Your task to perform on an android device: turn on javascript in the chrome app Image 0: 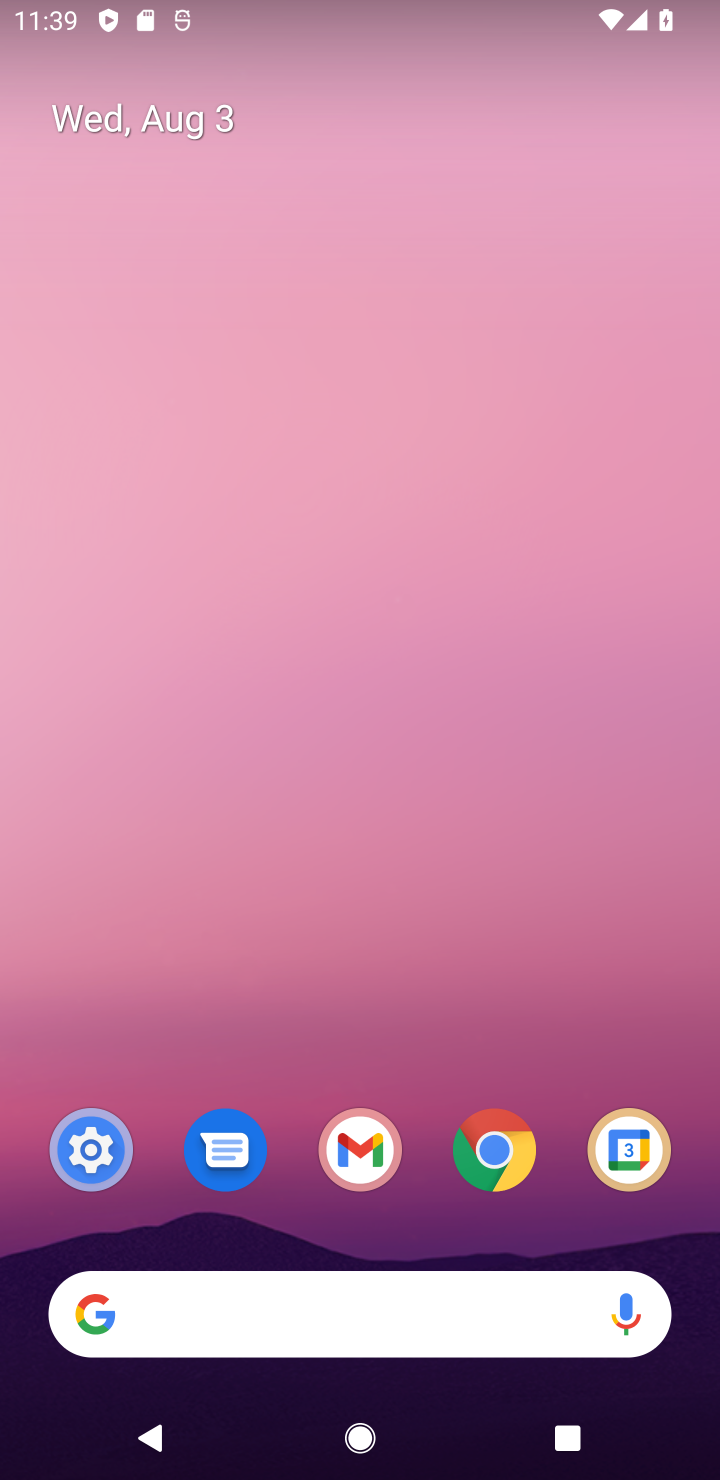
Step 0: press home button
Your task to perform on an android device: turn on javascript in the chrome app Image 1: 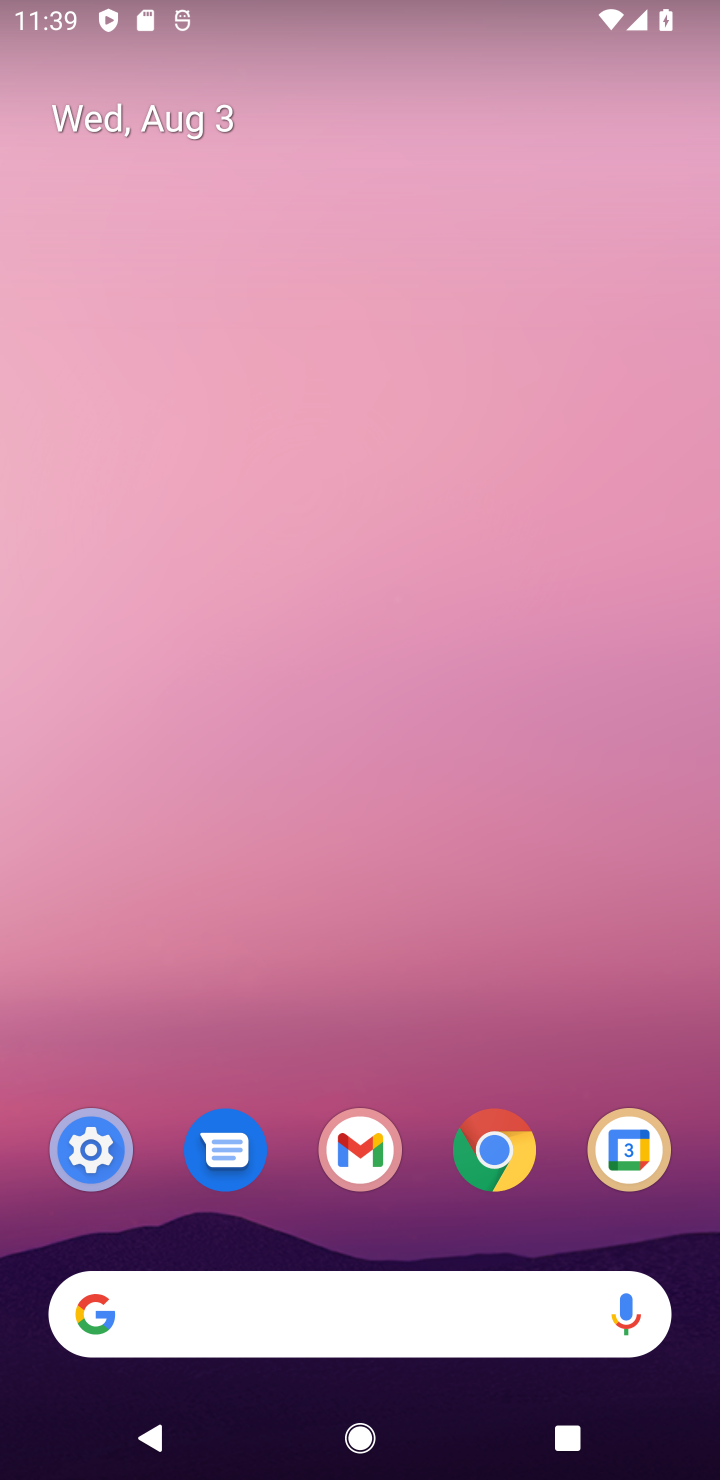
Step 1: drag from (542, 1049) to (572, 433)
Your task to perform on an android device: turn on javascript in the chrome app Image 2: 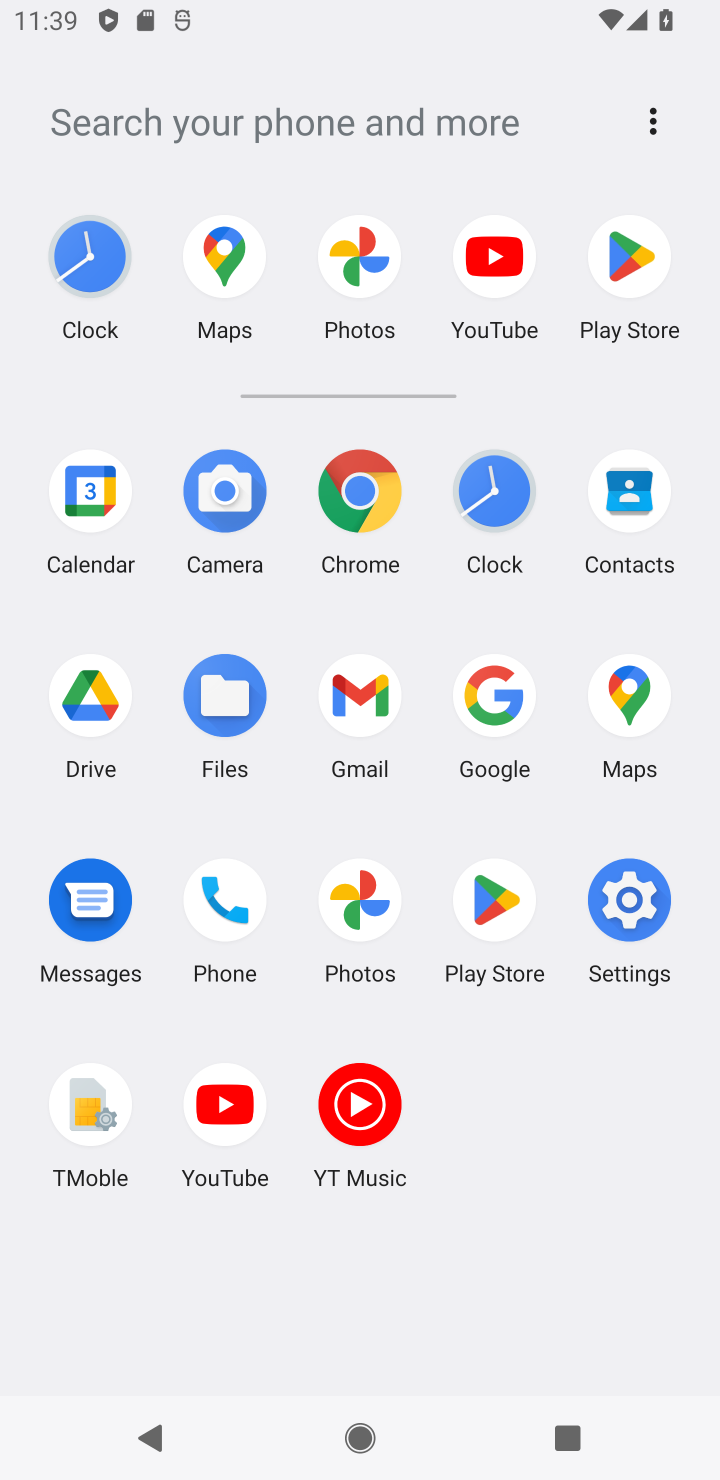
Step 2: click (366, 499)
Your task to perform on an android device: turn on javascript in the chrome app Image 3: 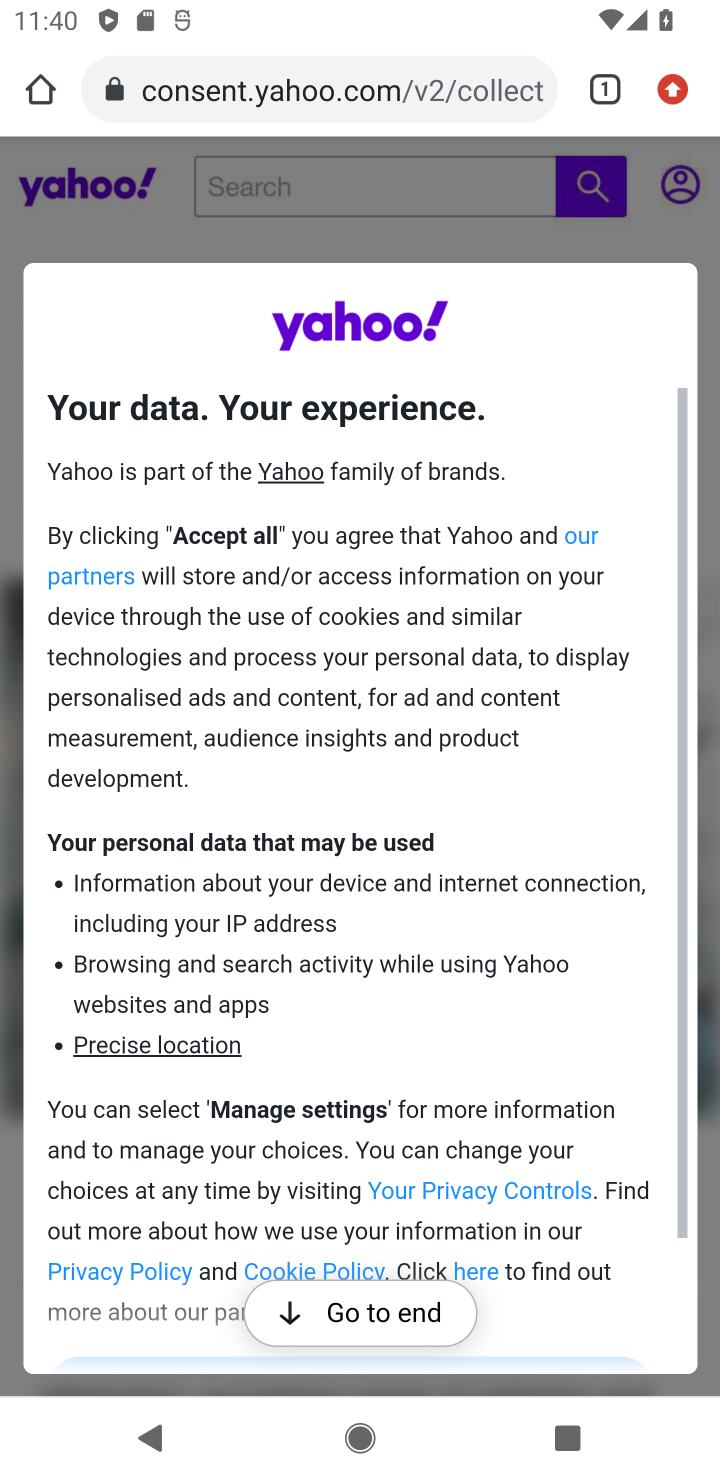
Step 3: click (679, 85)
Your task to perform on an android device: turn on javascript in the chrome app Image 4: 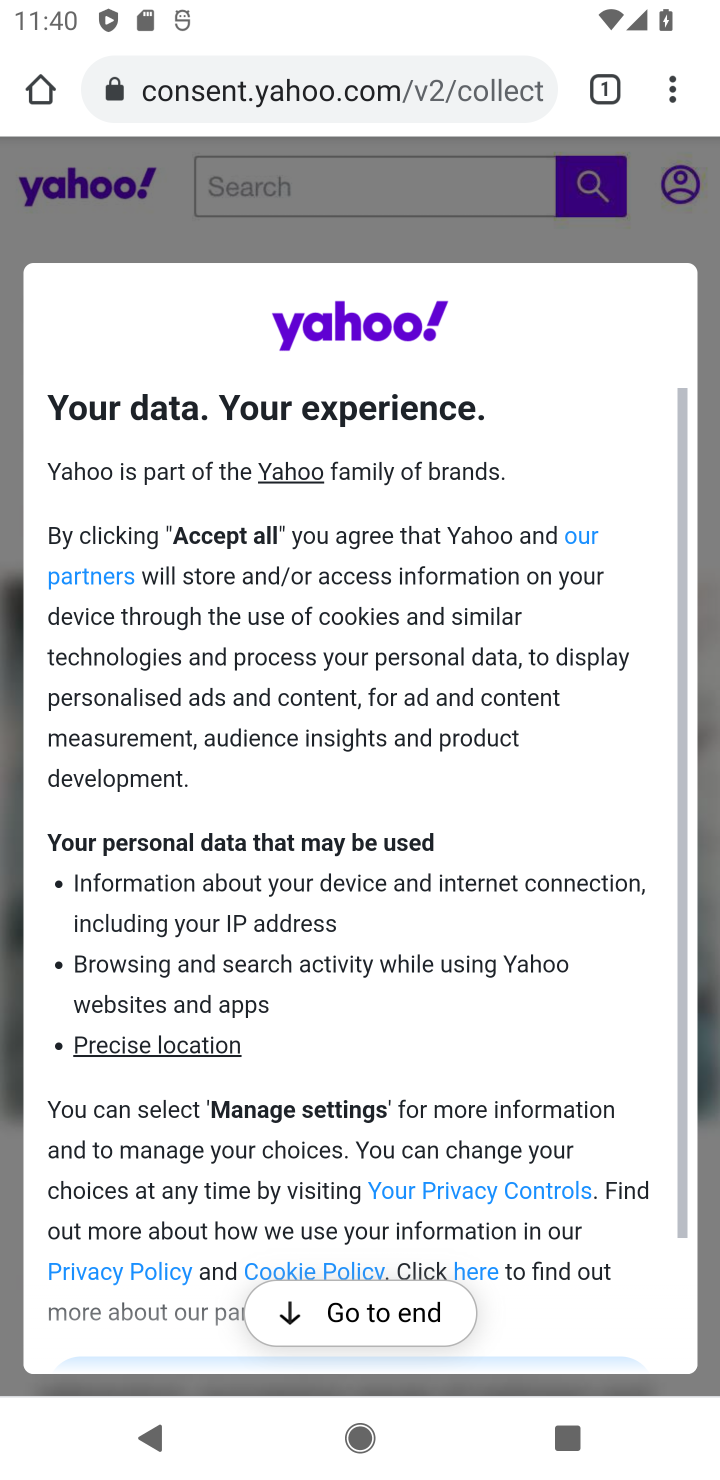
Step 4: click (667, 94)
Your task to perform on an android device: turn on javascript in the chrome app Image 5: 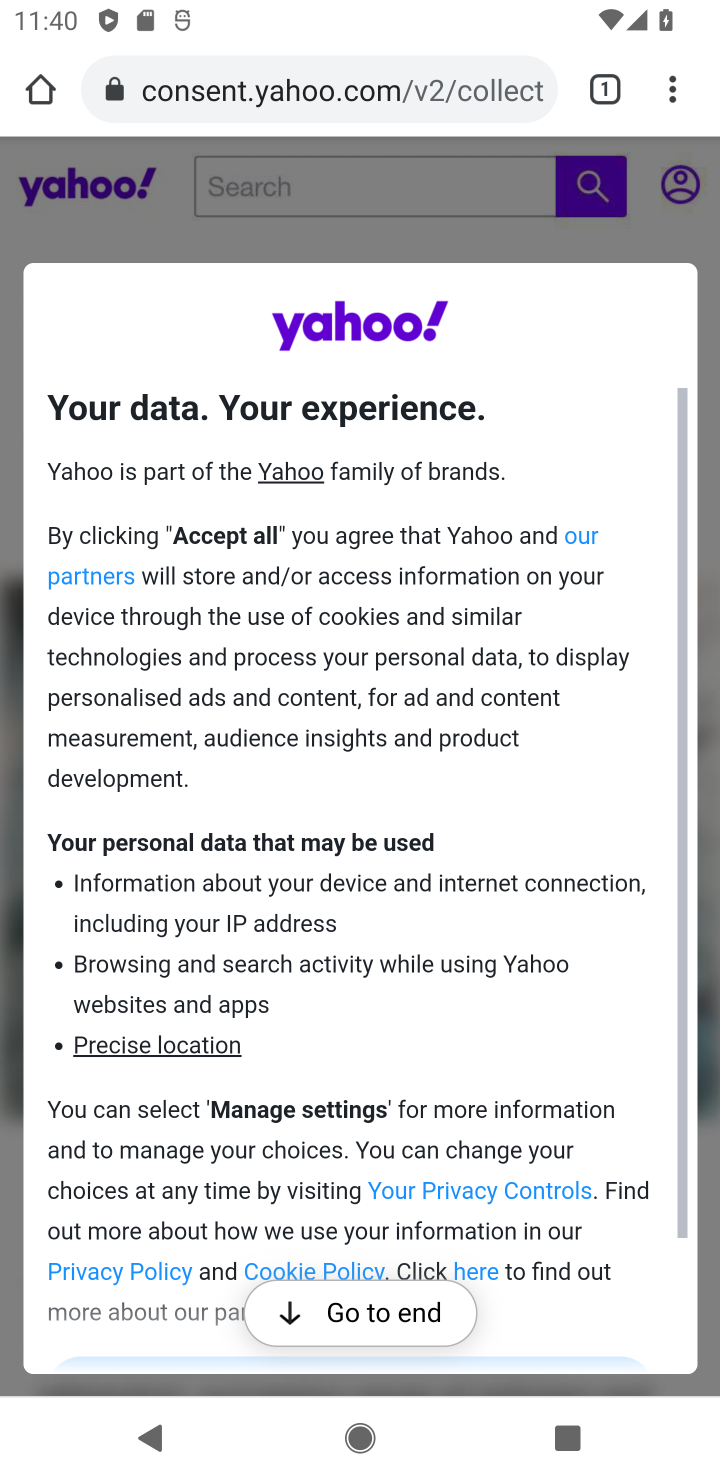
Step 5: click (666, 93)
Your task to perform on an android device: turn on javascript in the chrome app Image 6: 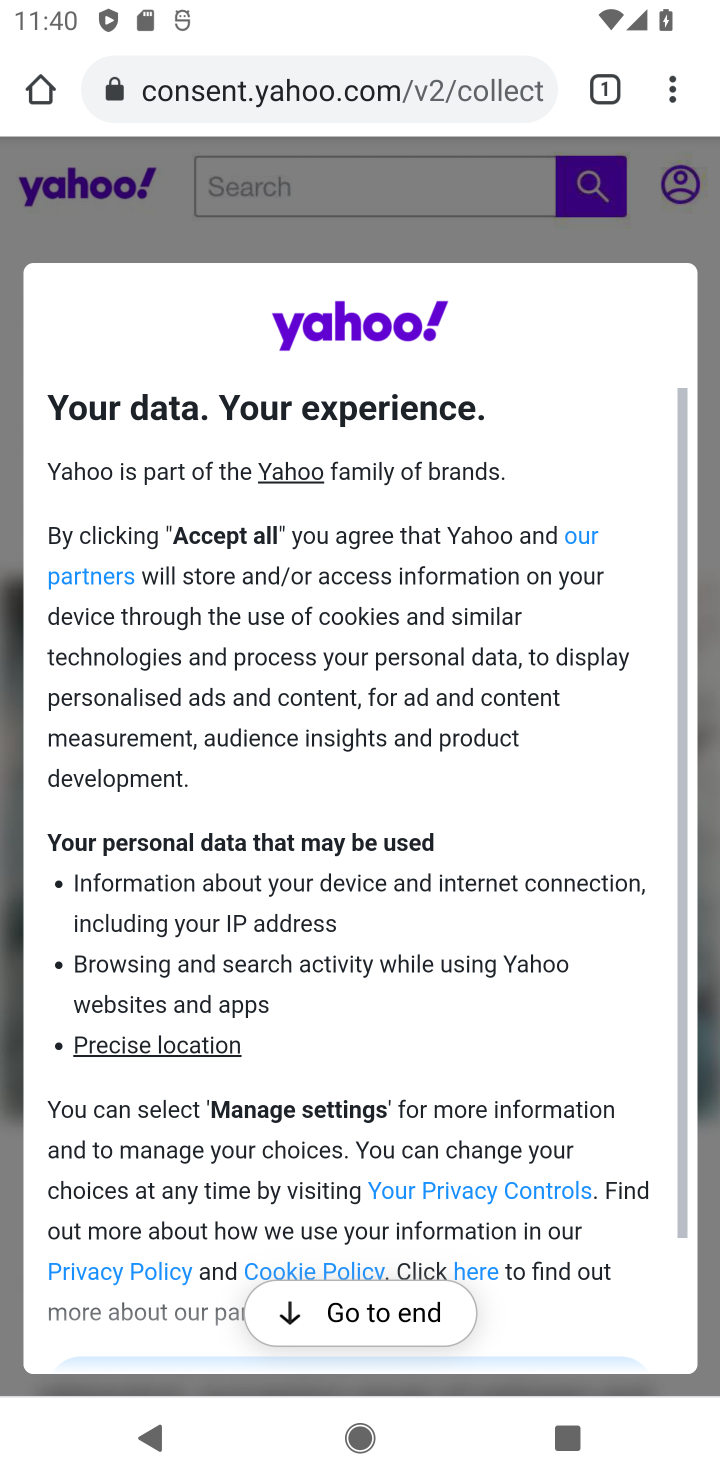
Step 6: click (669, 102)
Your task to perform on an android device: turn on javascript in the chrome app Image 7: 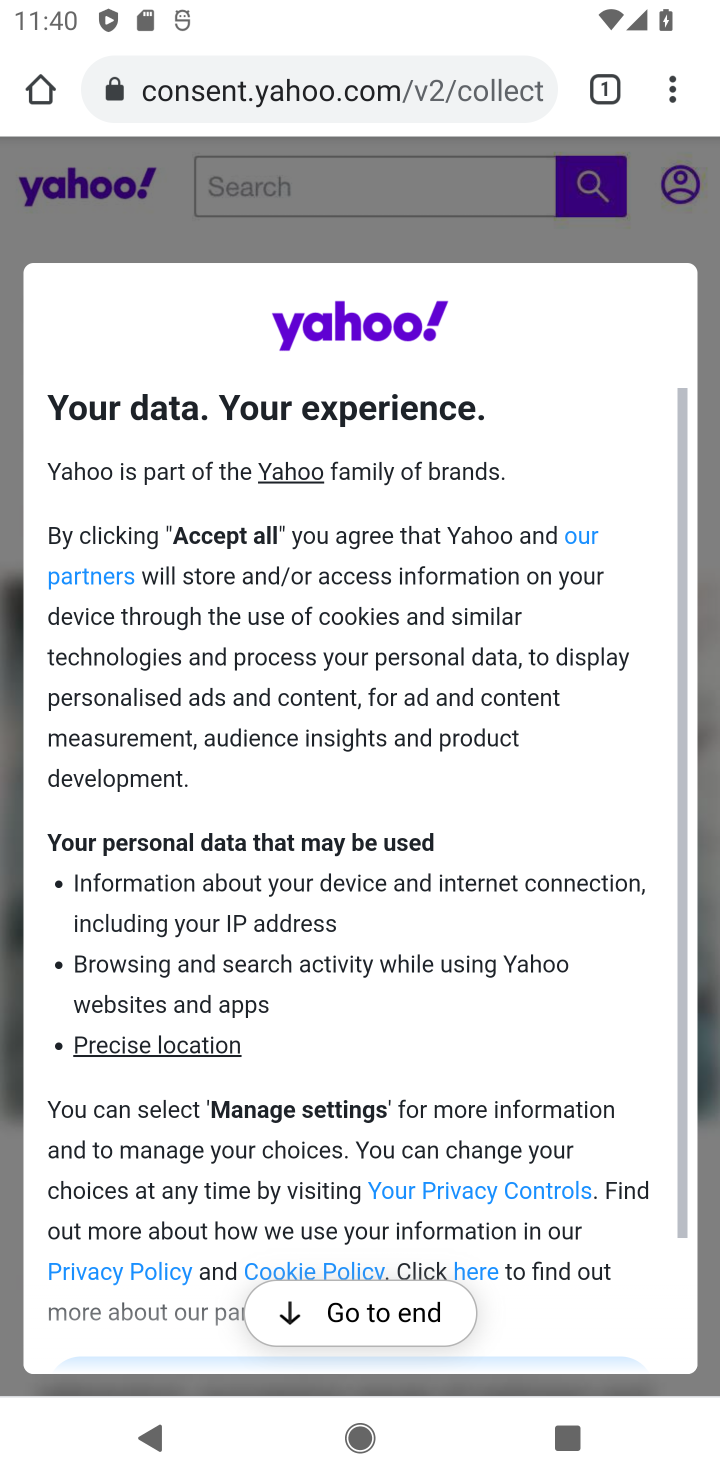
Step 7: click (668, 89)
Your task to perform on an android device: turn on javascript in the chrome app Image 8: 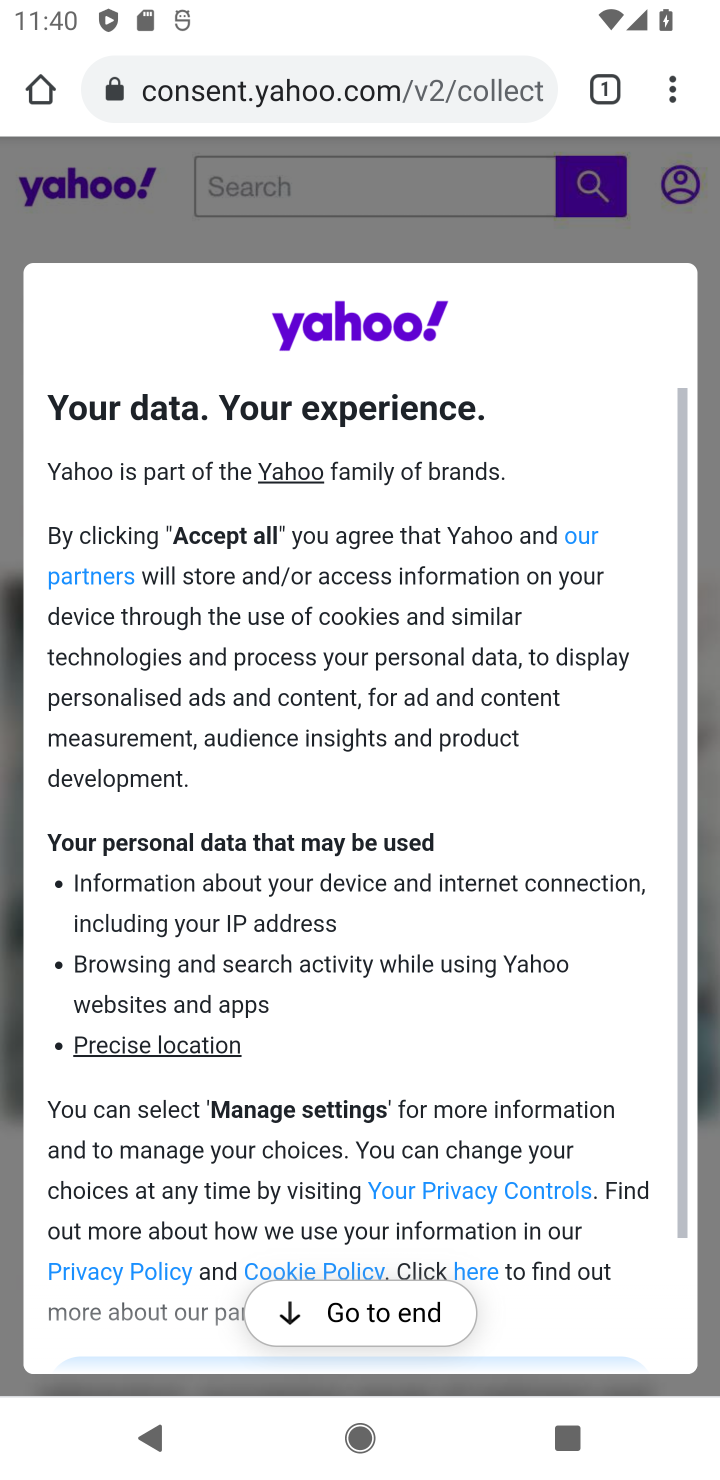
Step 8: click (676, 99)
Your task to perform on an android device: turn on javascript in the chrome app Image 9: 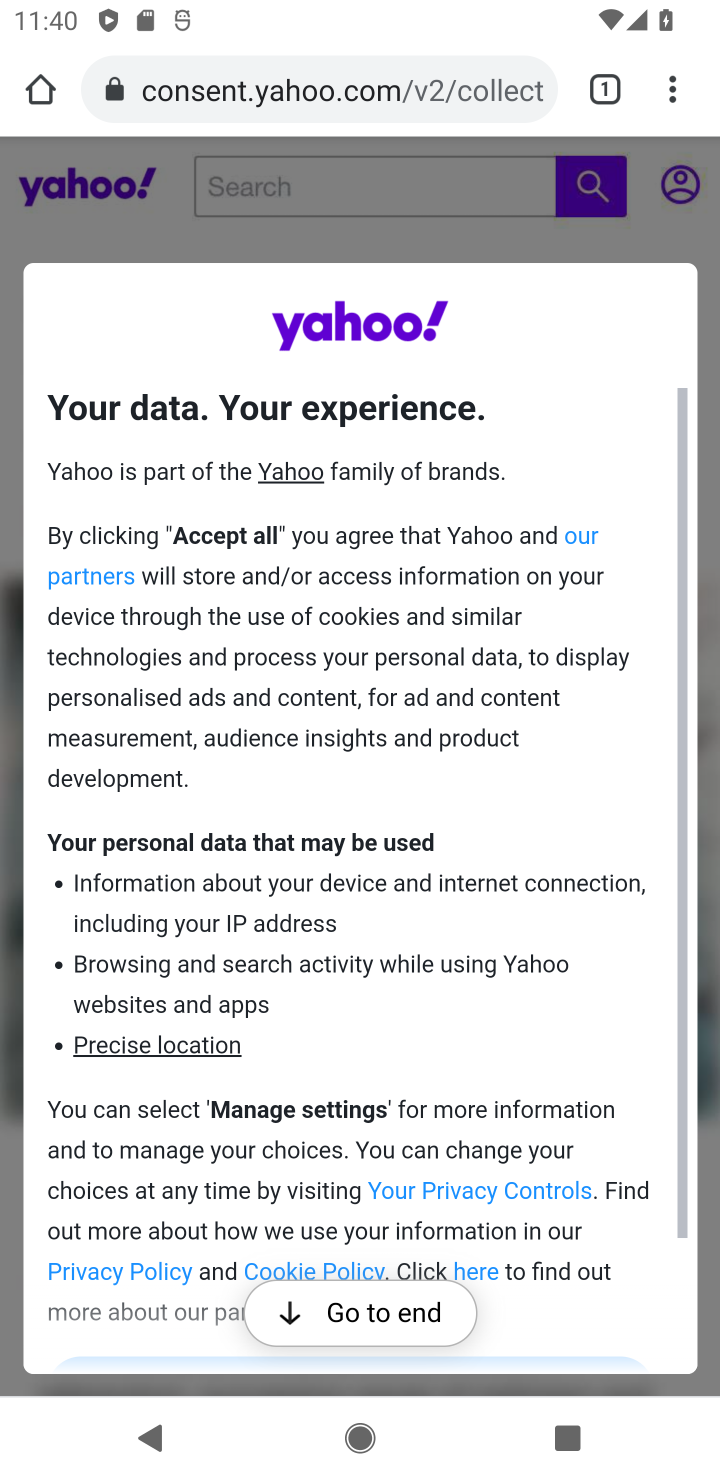
Step 9: click (673, 95)
Your task to perform on an android device: turn on javascript in the chrome app Image 10: 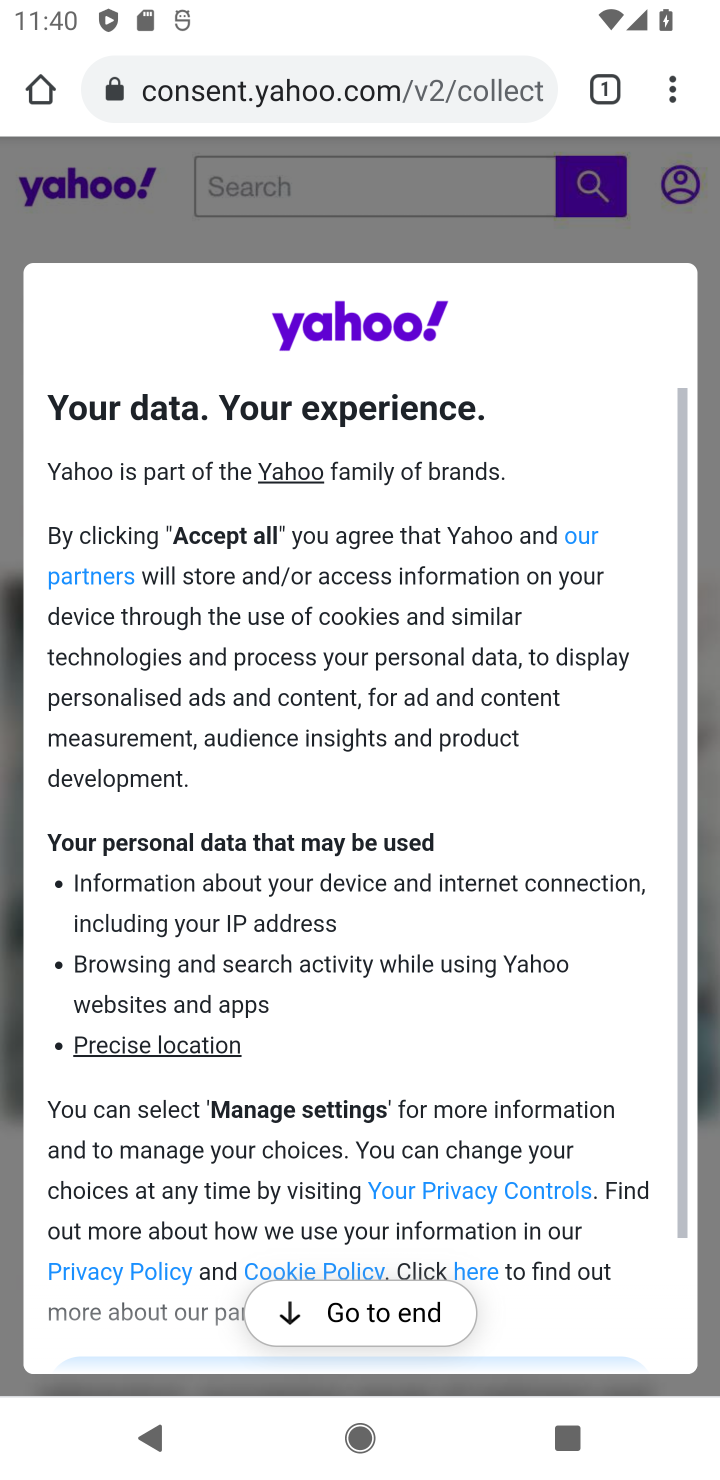
Step 10: task complete